Your task to perform on an android device: Find coffee shops on Maps Image 0: 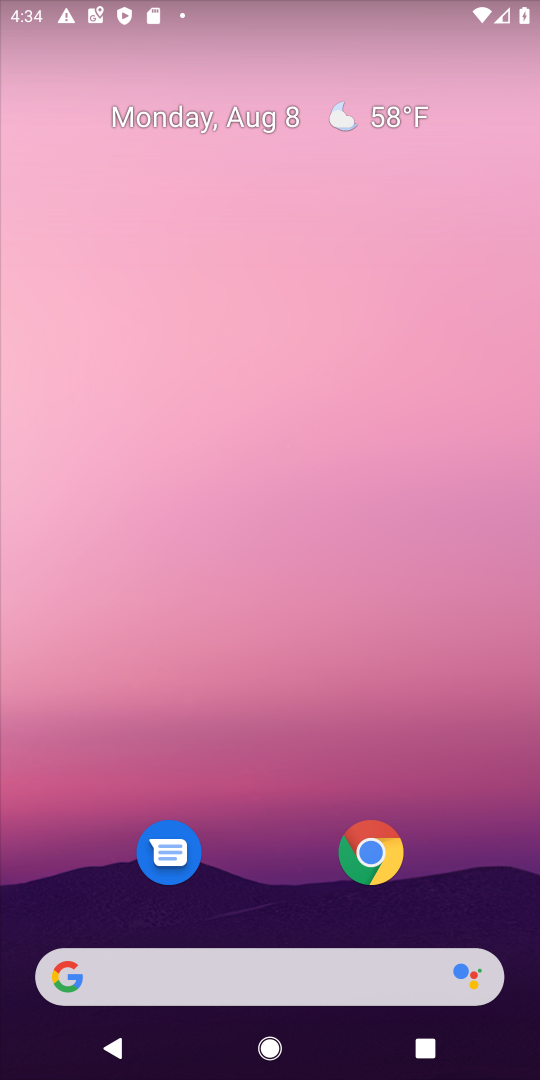
Step 0: drag from (266, 163) to (284, 52)
Your task to perform on an android device: Find coffee shops on Maps Image 1: 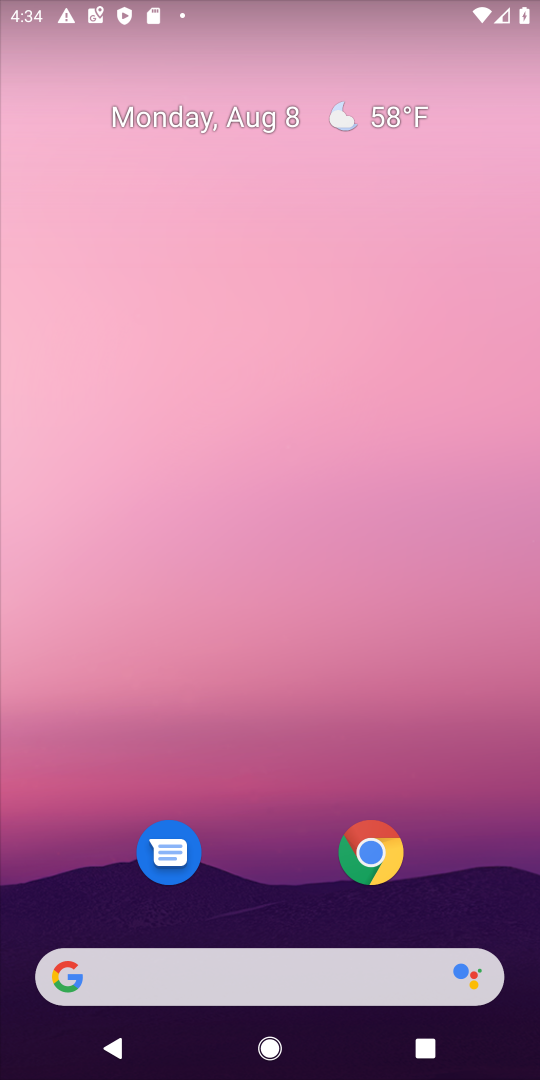
Step 1: drag from (231, 874) to (295, 111)
Your task to perform on an android device: Find coffee shops on Maps Image 2: 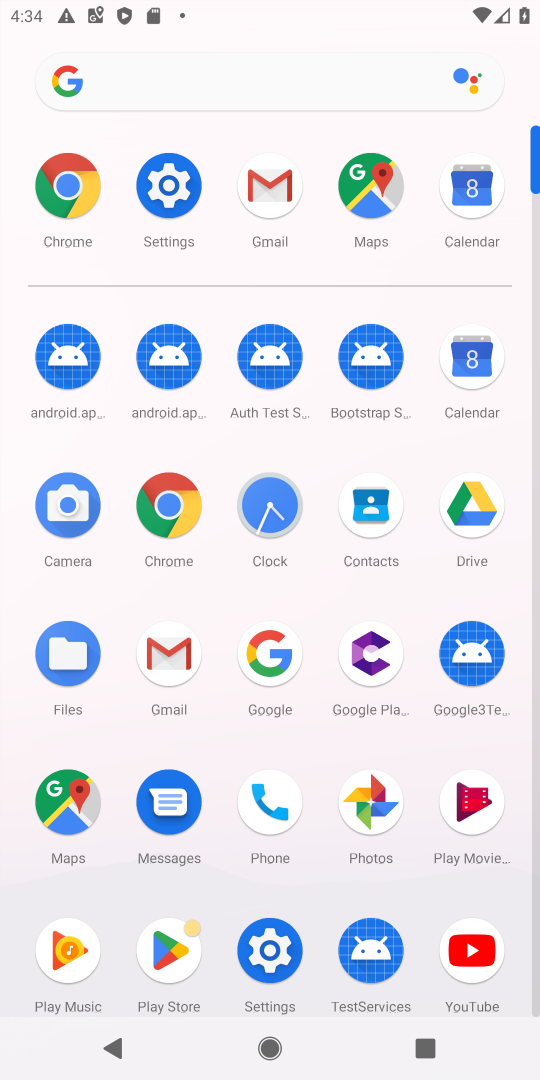
Step 2: click (68, 807)
Your task to perform on an android device: Find coffee shops on Maps Image 3: 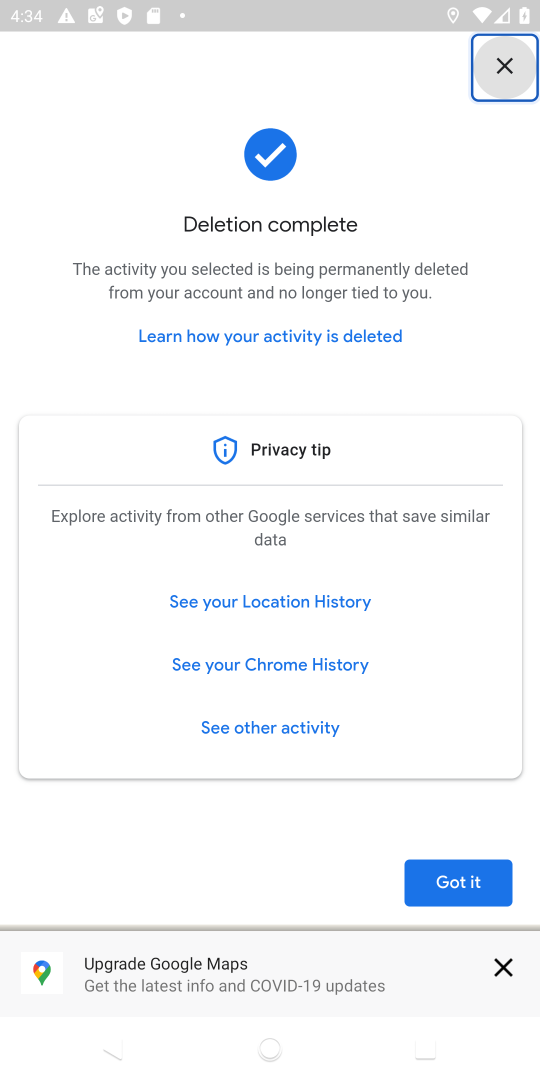
Step 3: click (436, 881)
Your task to perform on an android device: Find coffee shops on Maps Image 4: 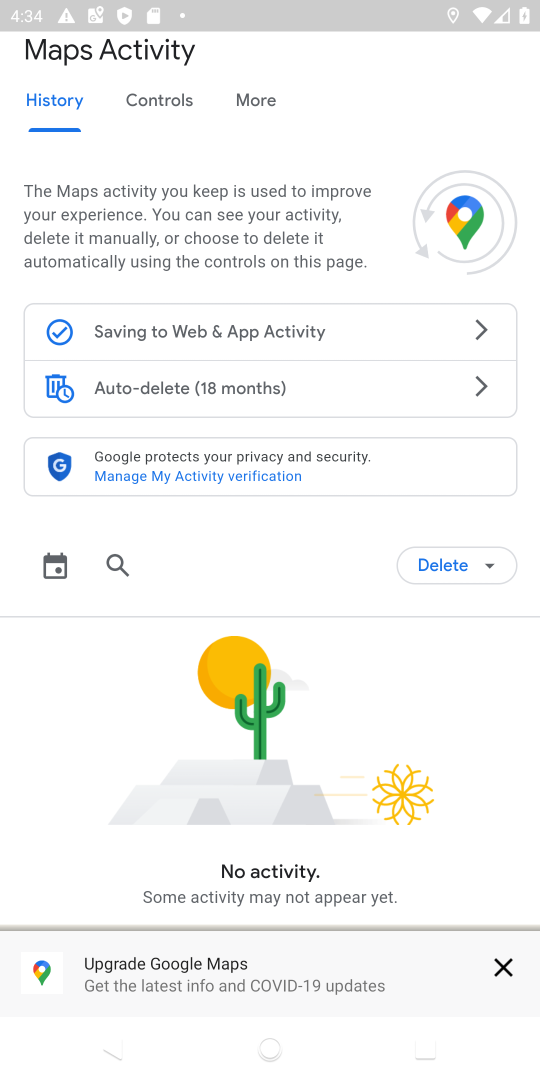
Step 4: press back button
Your task to perform on an android device: Find coffee shops on Maps Image 5: 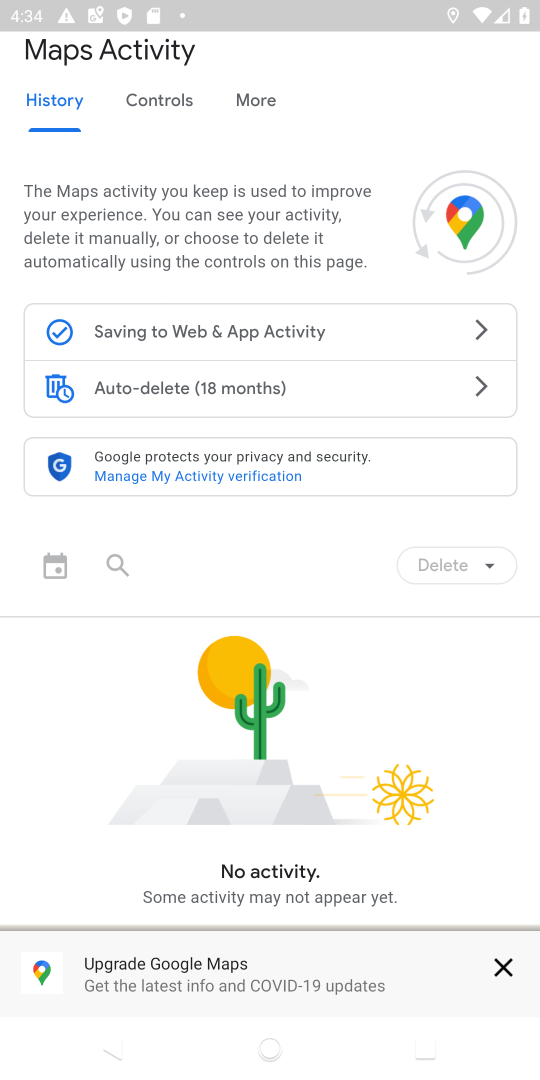
Step 5: press back button
Your task to perform on an android device: Find coffee shops on Maps Image 6: 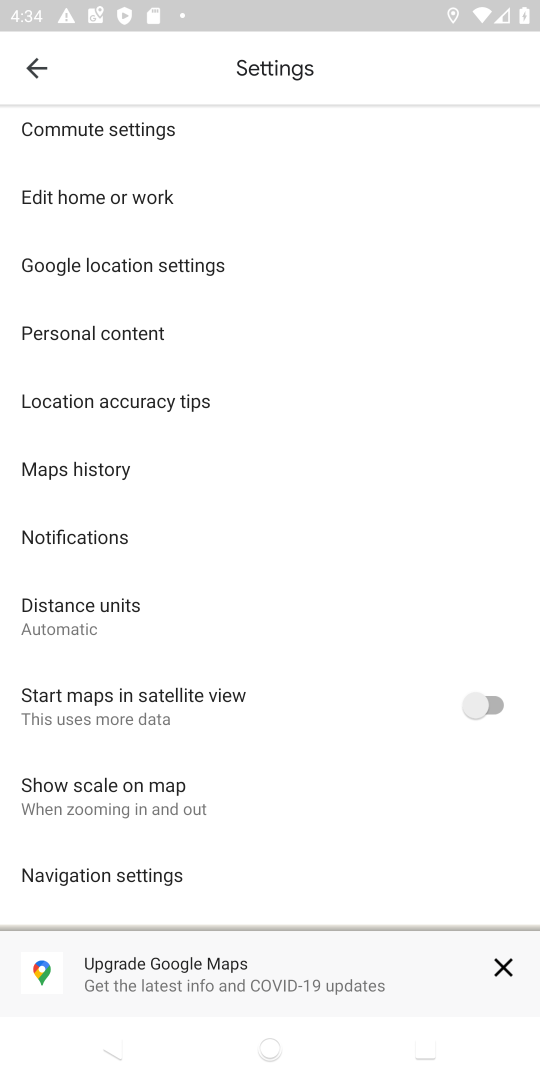
Step 6: click (24, 77)
Your task to perform on an android device: Find coffee shops on Maps Image 7: 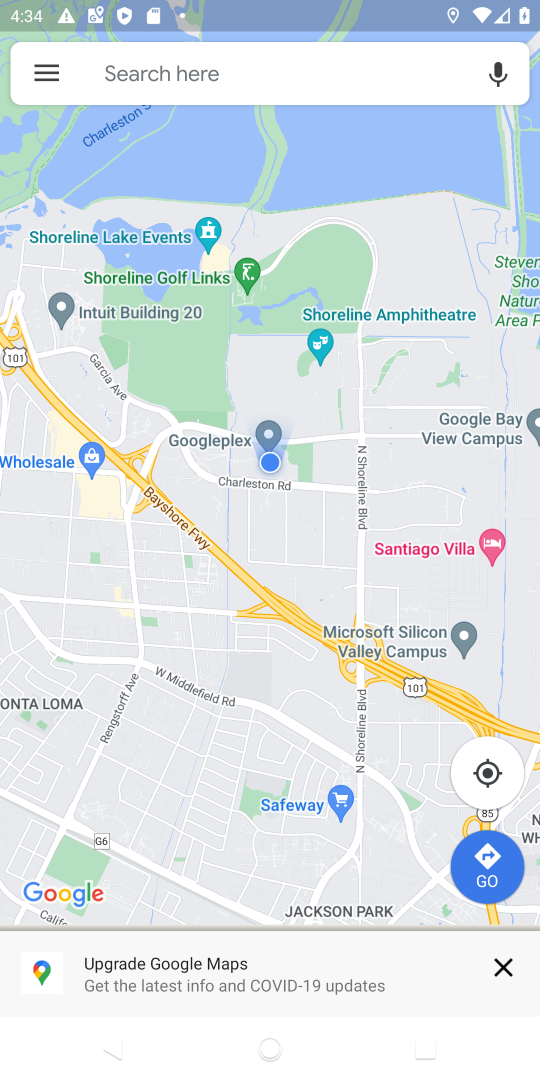
Step 7: click (215, 75)
Your task to perform on an android device: Find coffee shops on Maps Image 8: 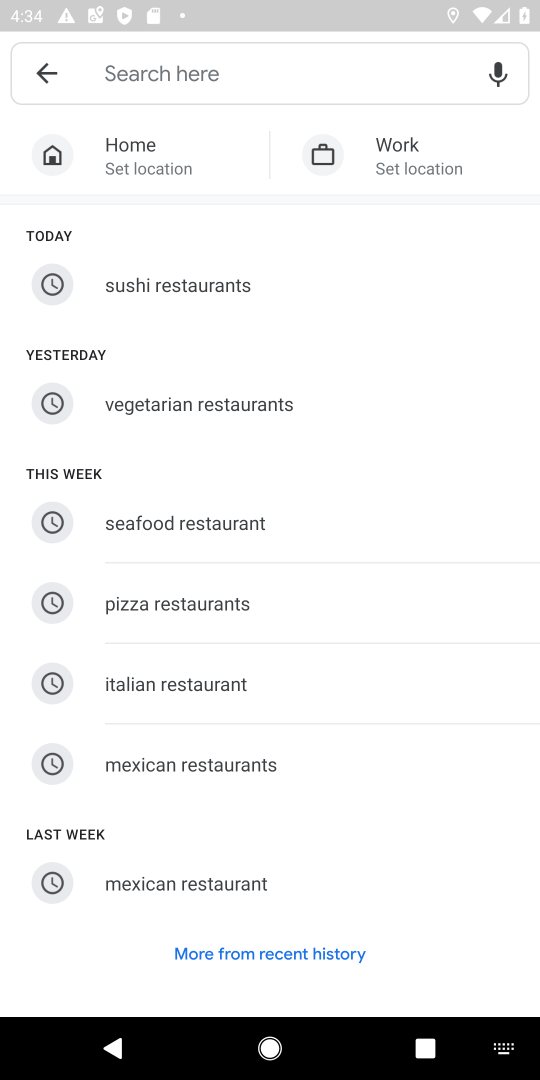
Step 8: type "coffee shops"
Your task to perform on an android device: Find coffee shops on Maps Image 9: 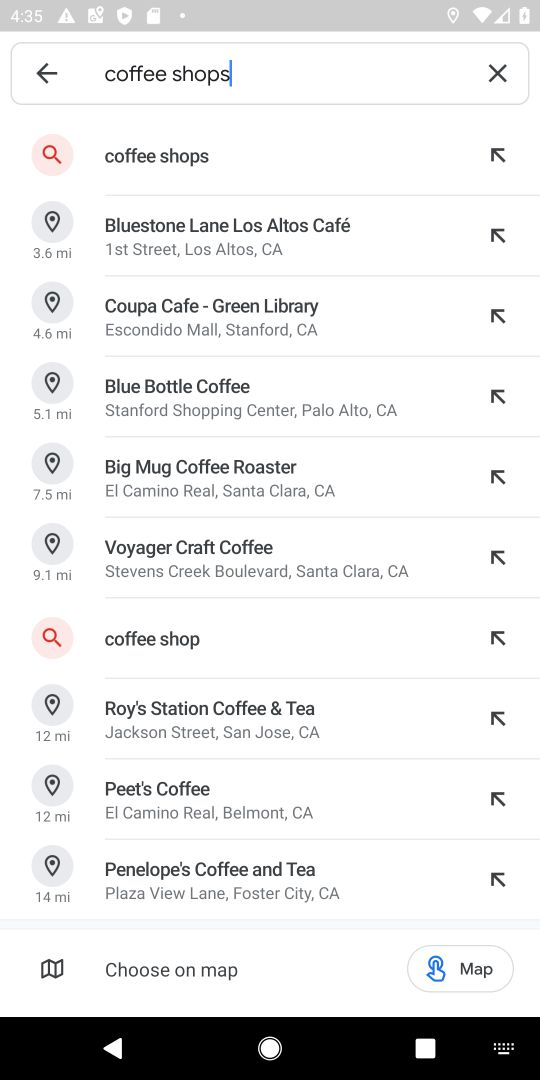
Step 9: click (128, 165)
Your task to perform on an android device: Find coffee shops on Maps Image 10: 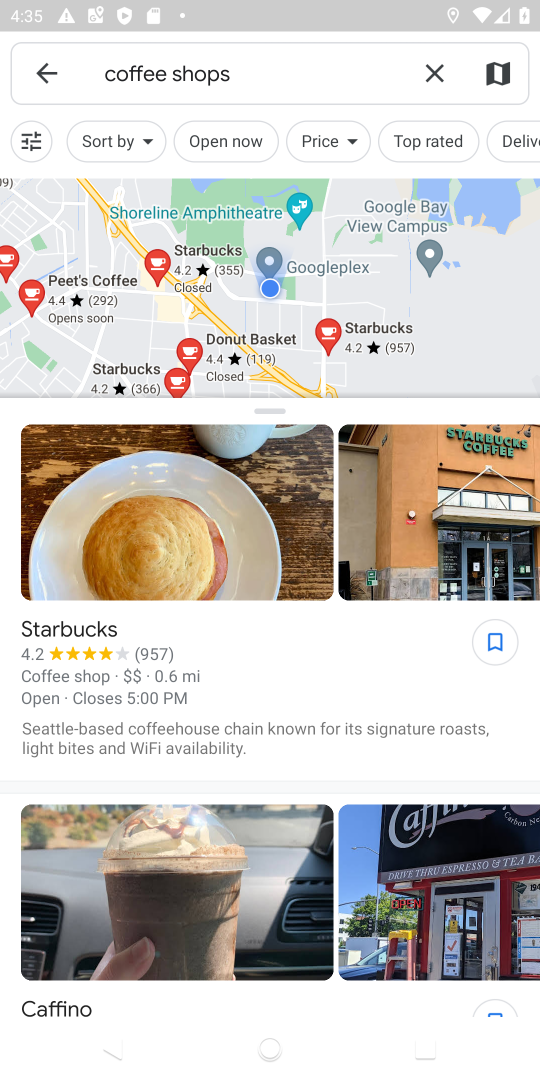
Step 10: task complete